Your task to perform on an android device: set the timer Image 0: 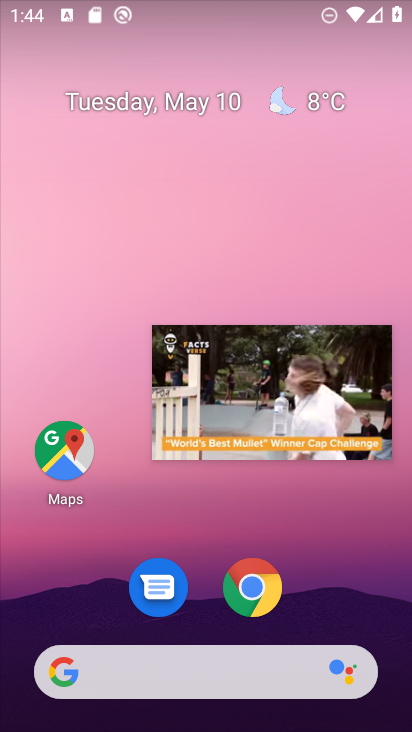
Step 0: drag from (400, 525) to (330, 115)
Your task to perform on an android device: set the timer Image 1: 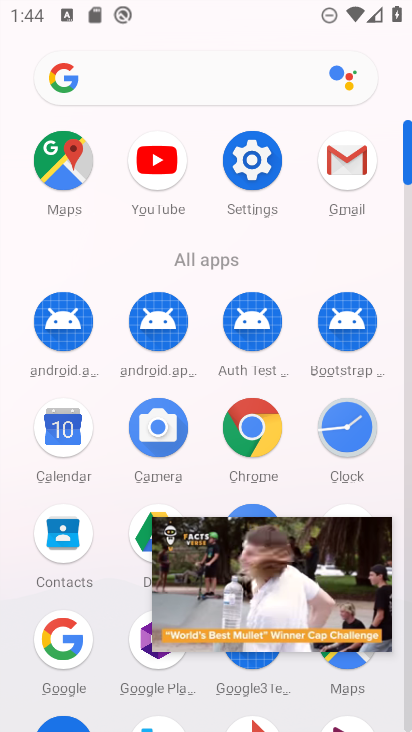
Step 1: click (347, 430)
Your task to perform on an android device: set the timer Image 2: 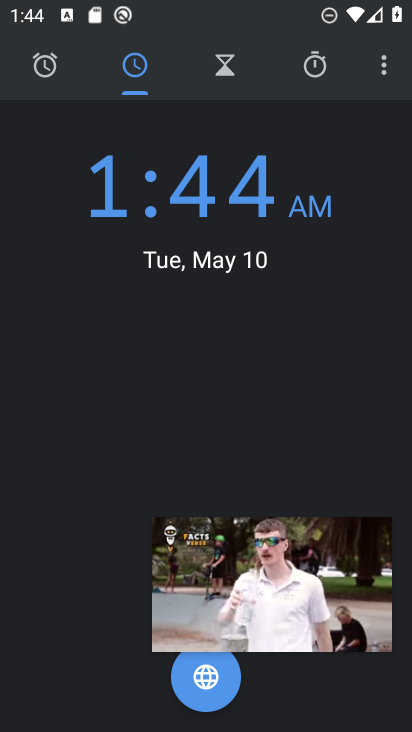
Step 2: click (313, 64)
Your task to perform on an android device: set the timer Image 3: 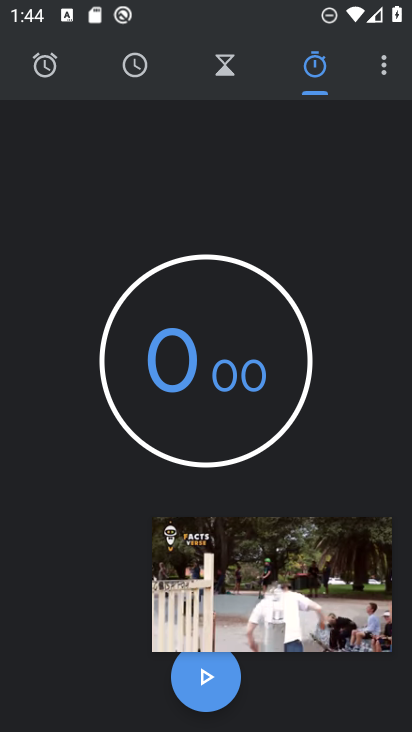
Step 3: click (225, 53)
Your task to perform on an android device: set the timer Image 4: 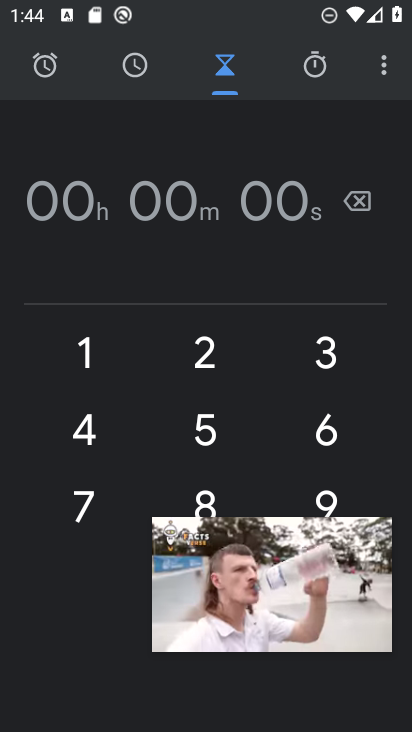
Step 4: click (194, 691)
Your task to perform on an android device: set the timer Image 5: 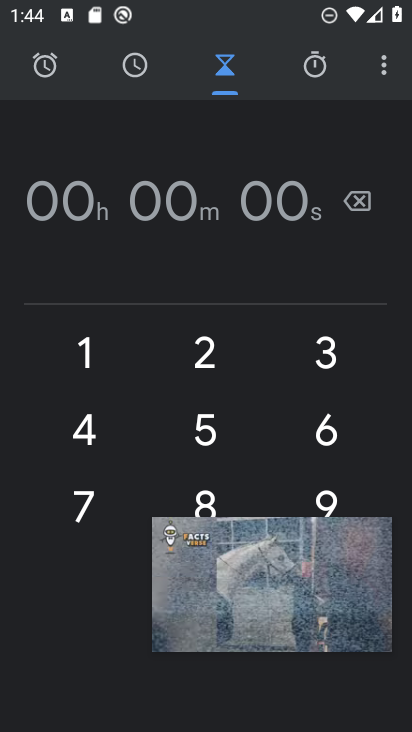
Step 5: task complete